Your task to perform on an android device: toggle data saver in the chrome app Image 0: 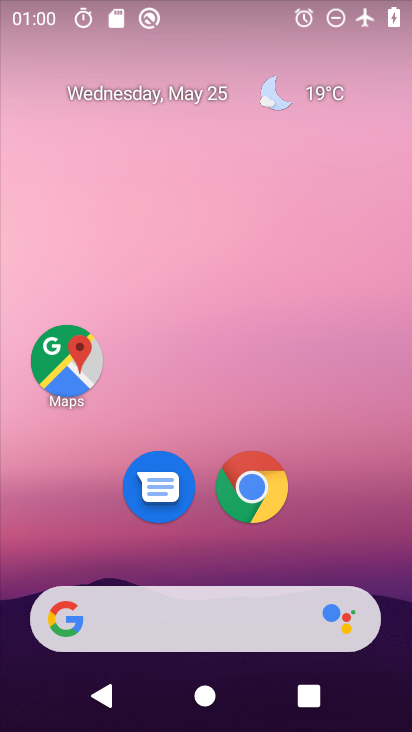
Step 0: click (258, 494)
Your task to perform on an android device: toggle data saver in the chrome app Image 1: 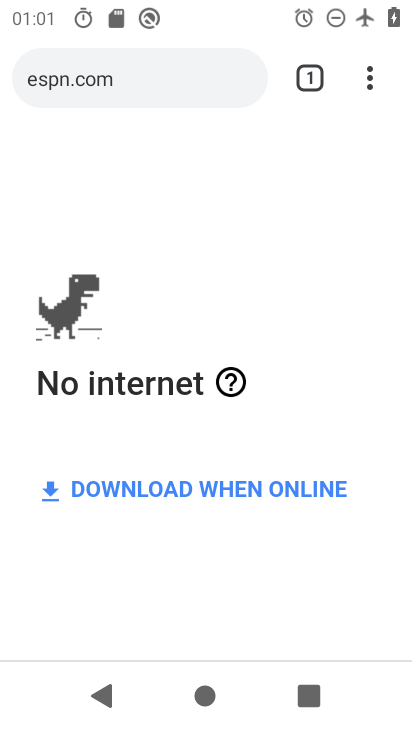
Step 1: click (368, 83)
Your task to perform on an android device: toggle data saver in the chrome app Image 2: 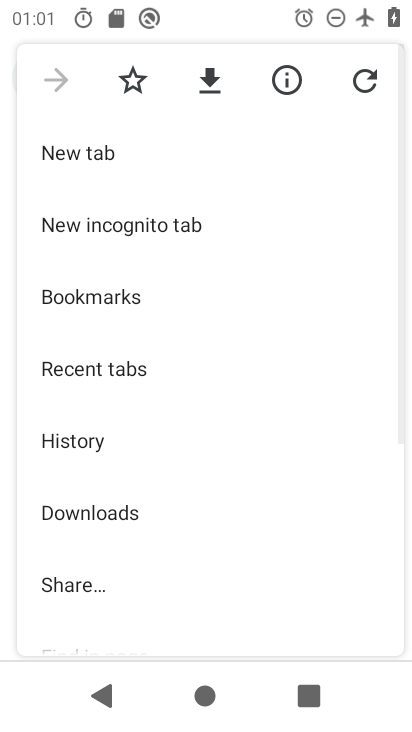
Step 2: drag from (172, 510) to (204, 254)
Your task to perform on an android device: toggle data saver in the chrome app Image 3: 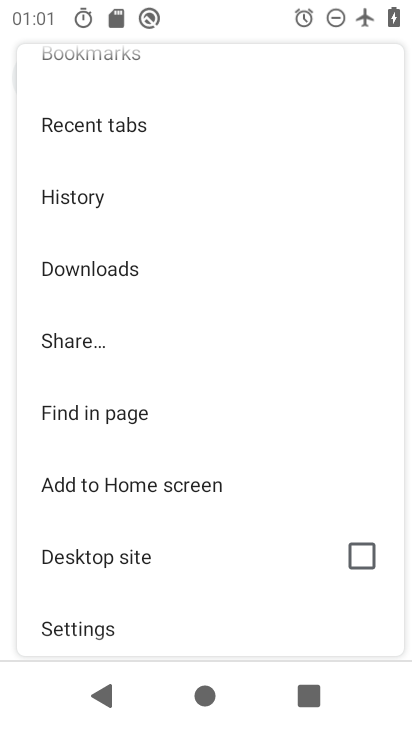
Step 3: drag from (165, 455) to (180, 249)
Your task to perform on an android device: toggle data saver in the chrome app Image 4: 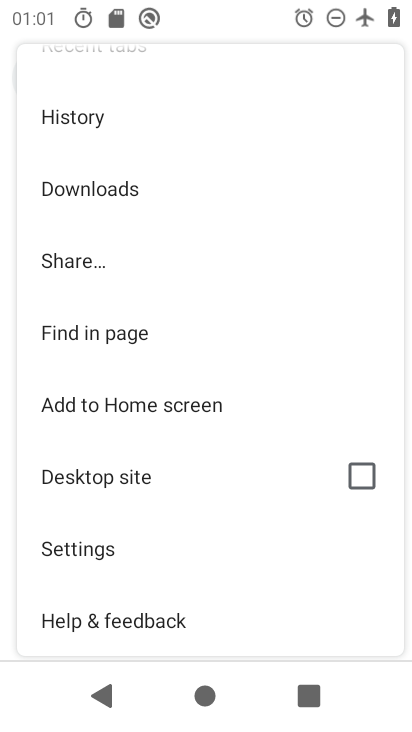
Step 4: click (68, 549)
Your task to perform on an android device: toggle data saver in the chrome app Image 5: 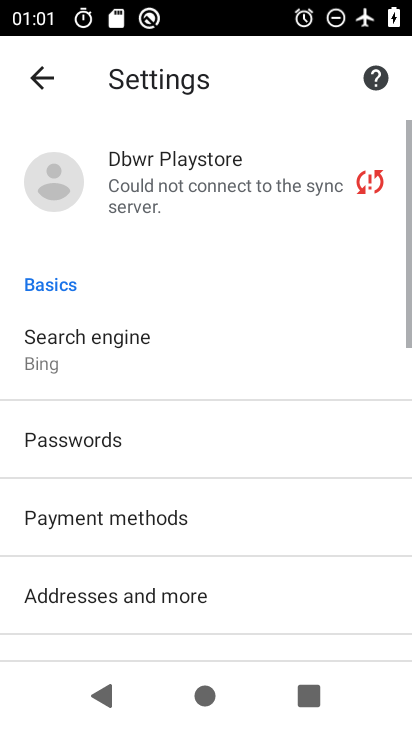
Step 5: drag from (131, 560) to (169, 186)
Your task to perform on an android device: toggle data saver in the chrome app Image 6: 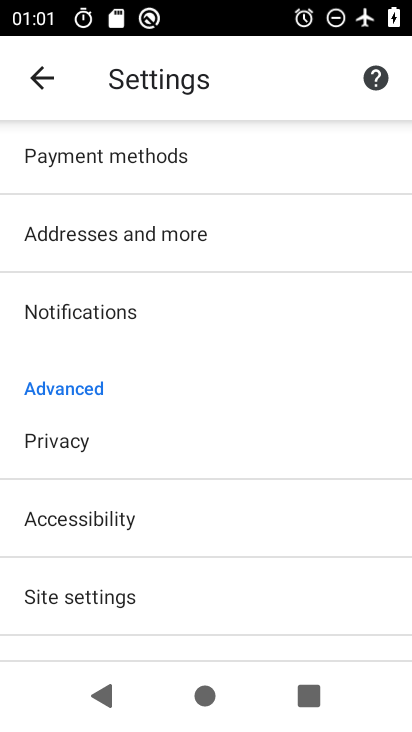
Step 6: drag from (137, 434) to (158, 181)
Your task to perform on an android device: toggle data saver in the chrome app Image 7: 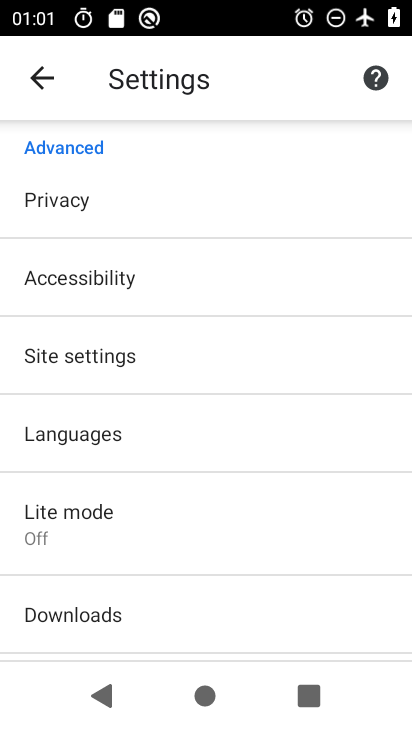
Step 7: click (65, 524)
Your task to perform on an android device: toggle data saver in the chrome app Image 8: 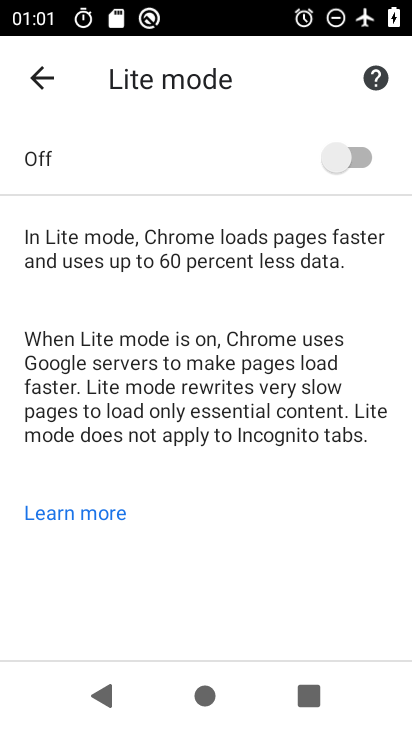
Step 8: click (348, 168)
Your task to perform on an android device: toggle data saver in the chrome app Image 9: 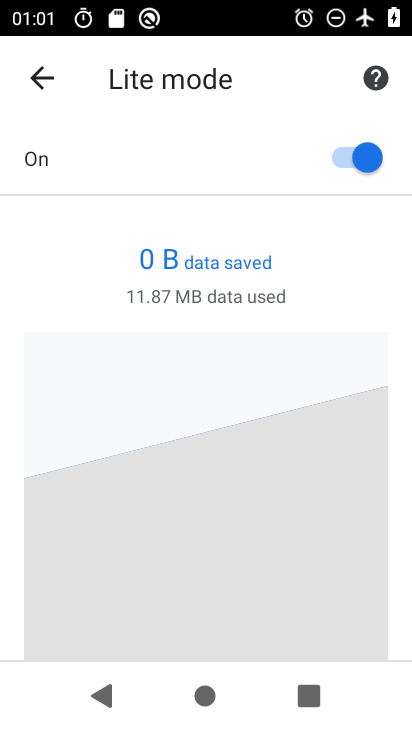
Step 9: task complete